Your task to perform on an android device: Turn off the flashlight Image 0: 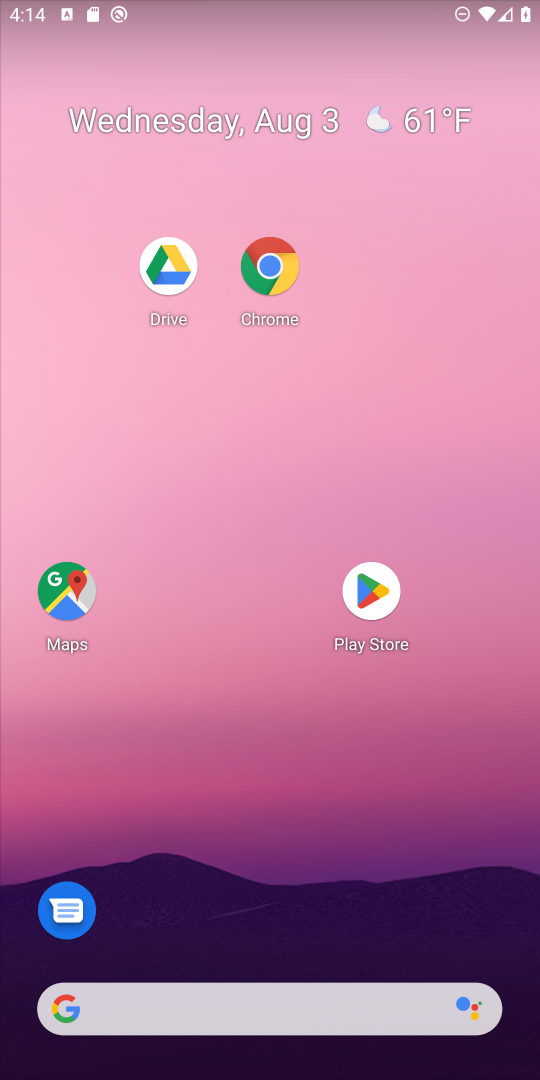
Step 0: click (260, 764)
Your task to perform on an android device: Turn off the flashlight Image 1: 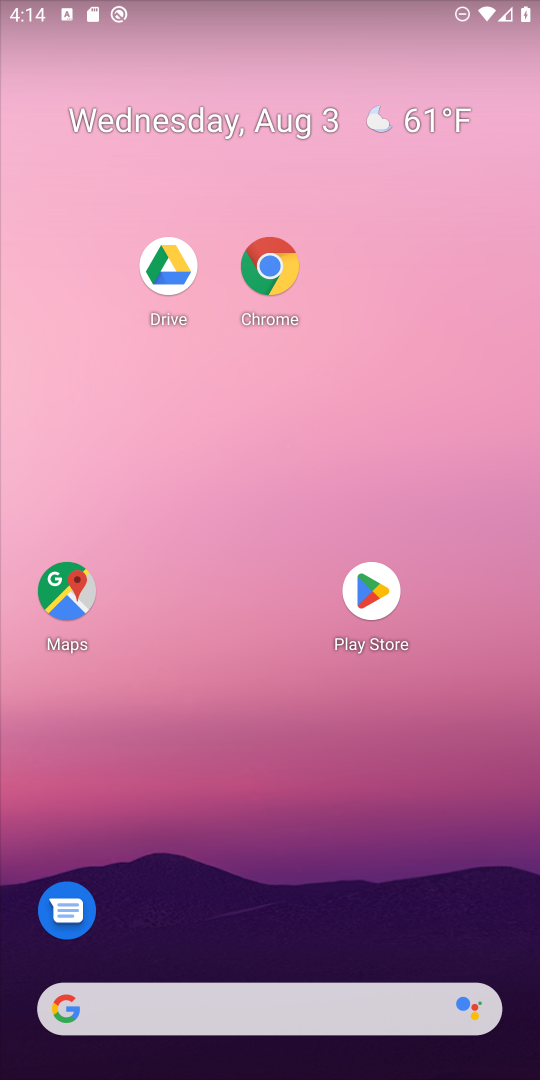
Step 1: task complete